Your task to perform on an android device: turn off notifications in google photos Image 0: 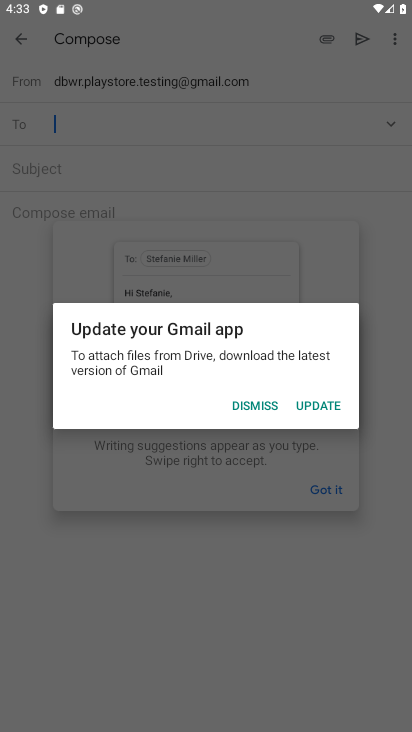
Step 0: press home button
Your task to perform on an android device: turn off notifications in google photos Image 1: 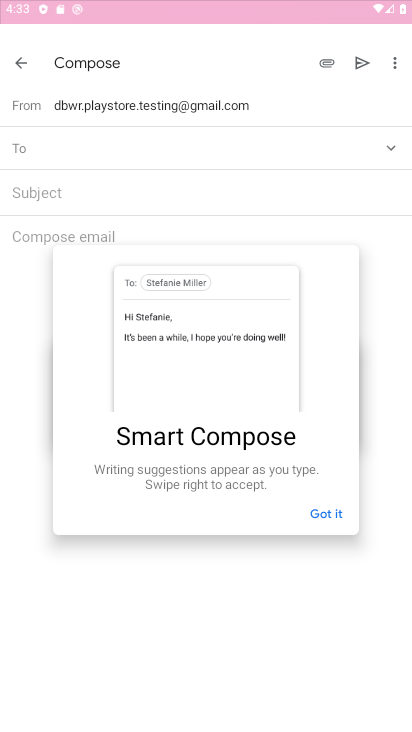
Step 1: click (254, 405)
Your task to perform on an android device: turn off notifications in google photos Image 2: 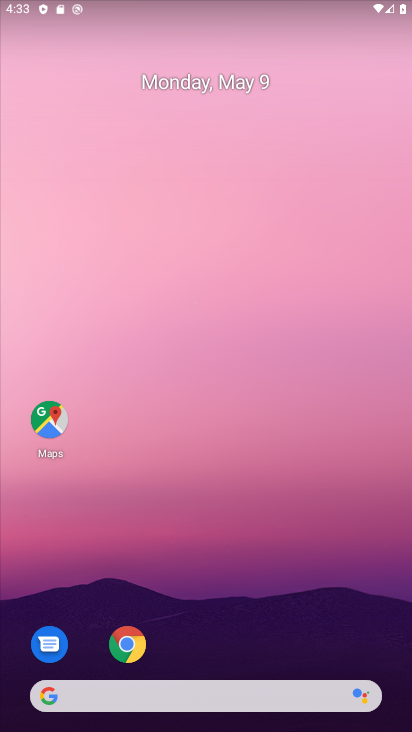
Step 2: click (75, 94)
Your task to perform on an android device: turn off notifications in google photos Image 3: 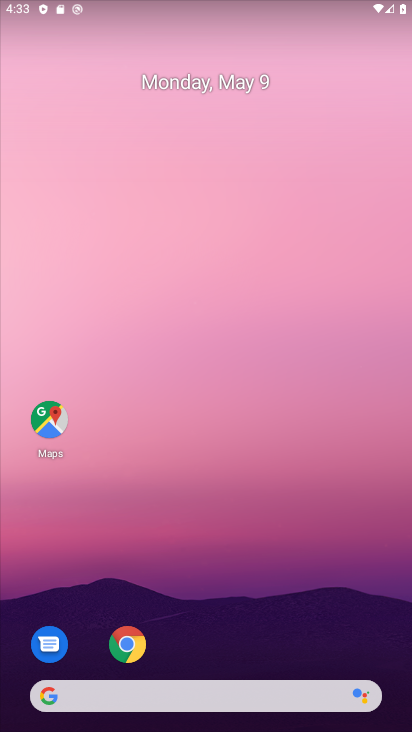
Step 3: drag from (276, 532) to (182, 159)
Your task to perform on an android device: turn off notifications in google photos Image 4: 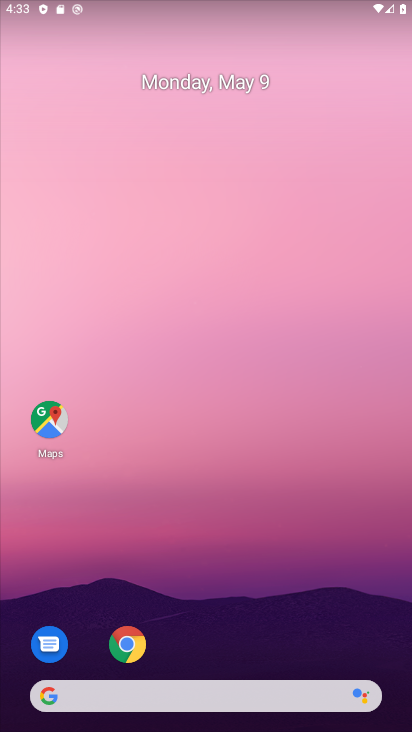
Step 4: drag from (233, 468) to (145, 94)
Your task to perform on an android device: turn off notifications in google photos Image 5: 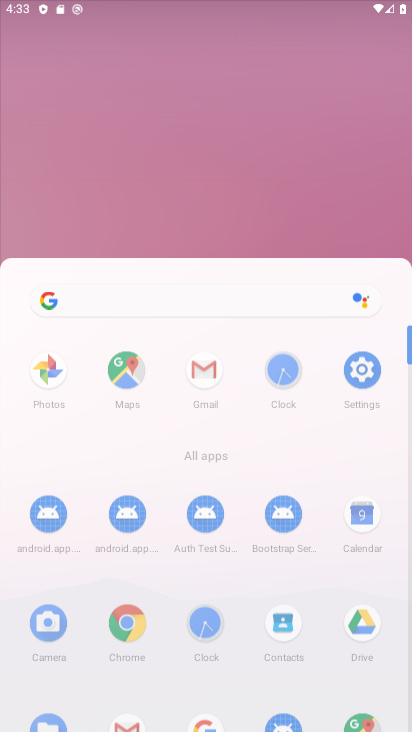
Step 5: drag from (195, 504) to (143, 109)
Your task to perform on an android device: turn off notifications in google photos Image 6: 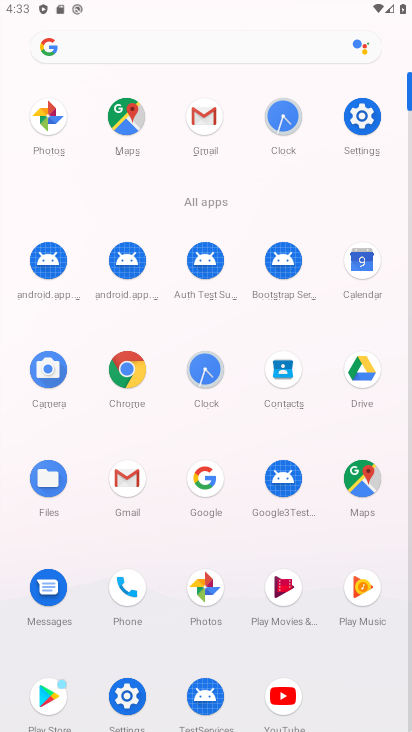
Step 6: click (202, 587)
Your task to perform on an android device: turn off notifications in google photos Image 7: 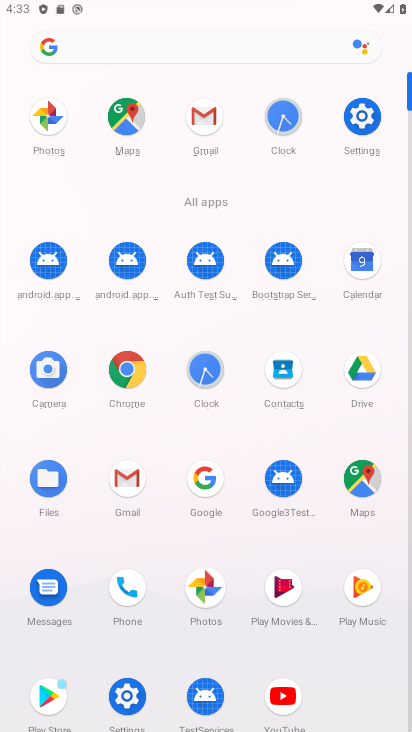
Step 7: click (202, 587)
Your task to perform on an android device: turn off notifications in google photos Image 8: 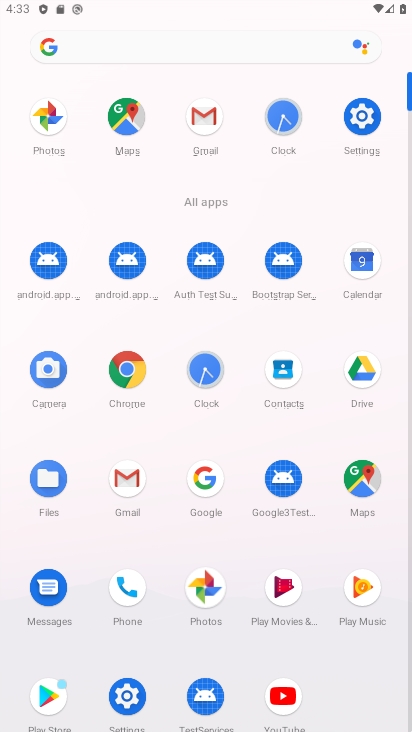
Step 8: click (202, 587)
Your task to perform on an android device: turn off notifications in google photos Image 9: 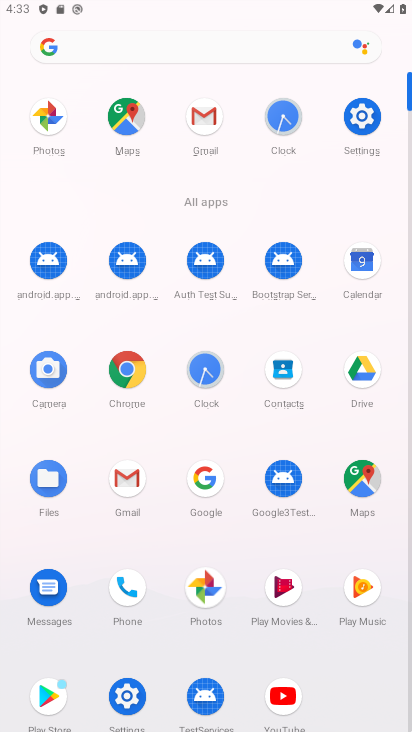
Step 9: click (202, 587)
Your task to perform on an android device: turn off notifications in google photos Image 10: 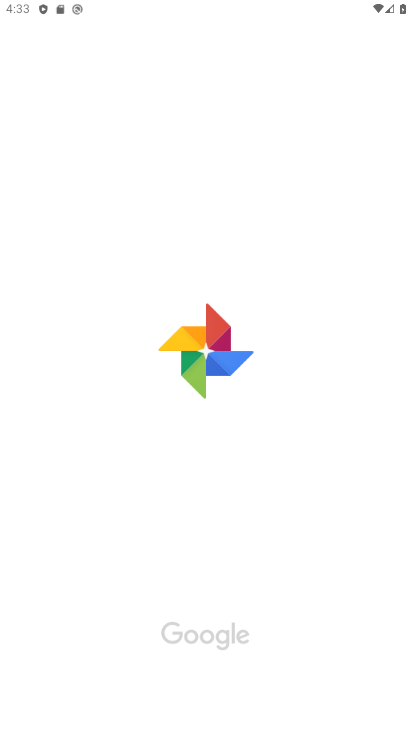
Step 10: click (202, 587)
Your task to perform on an android device: turn off notifications in google photos Image 11: 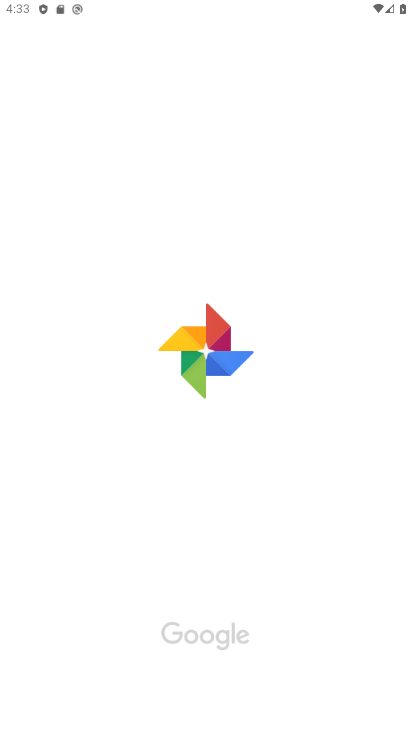
Step 11: click (202, 587)
Your task to perform on an android device: turn off notifications in google photos Image 12: 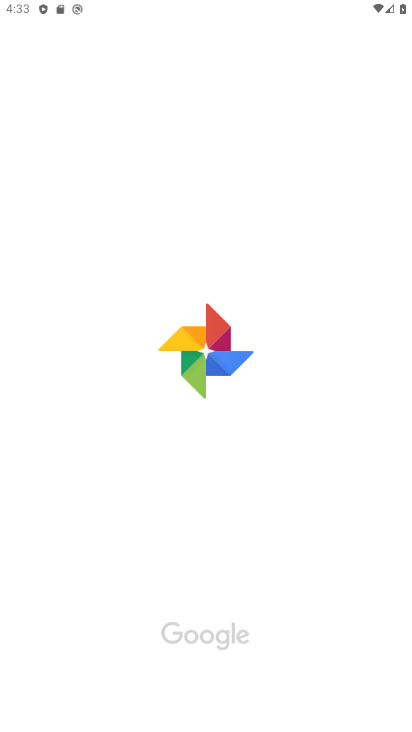
Step 12: click (202, 587)
Your task to perform on an android device: turn off notifications in google photos Image 13: 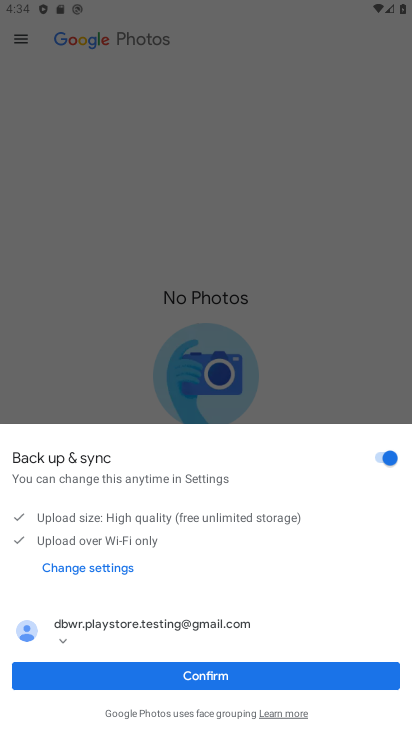
Step 13: click (235, 671)
Your task to perform on an android device: turn off notifications in google photos Image 14: 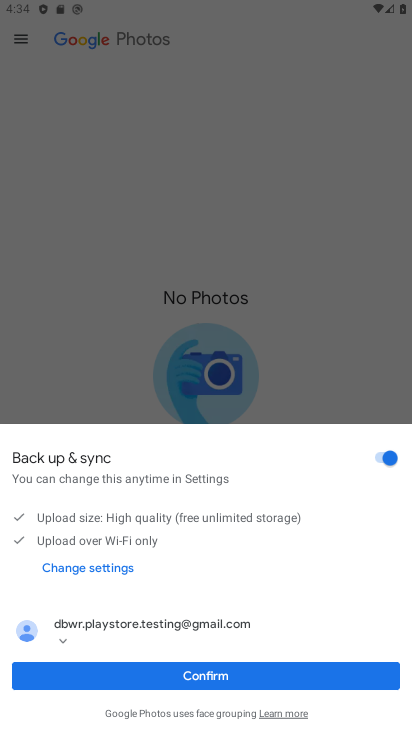
Step 14: click (234, 672)
Your task to perform on an android device: turn off notifications in google photos Image 15: 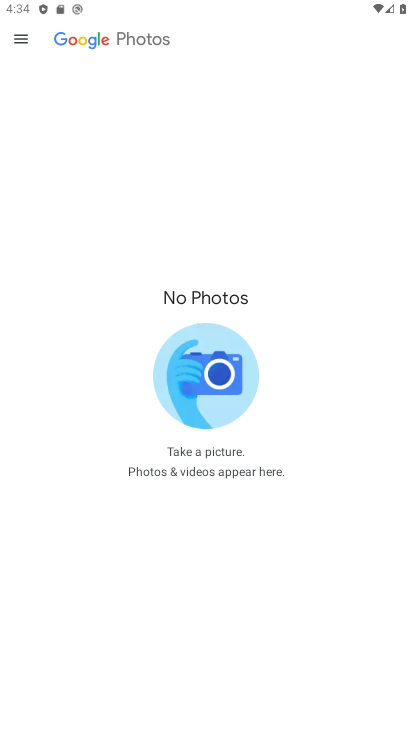
Step 15: click (234, 673)
Your task to perform on an android device: turn off notifications in google photos Image 16: 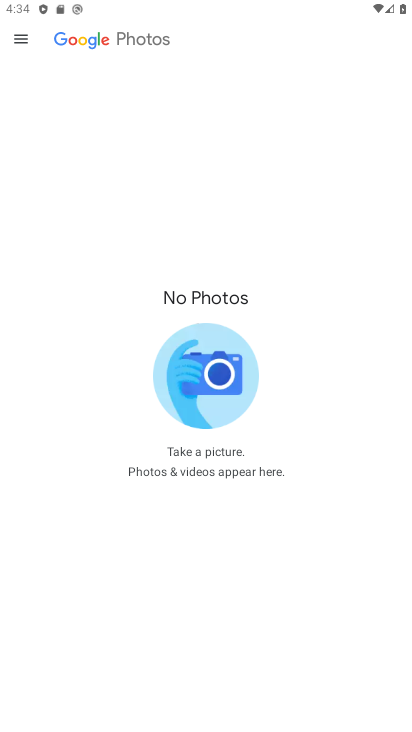
Step 16: click (234, 673)
Your task to perform on an android device: turn off notifications in google photos Image 17: 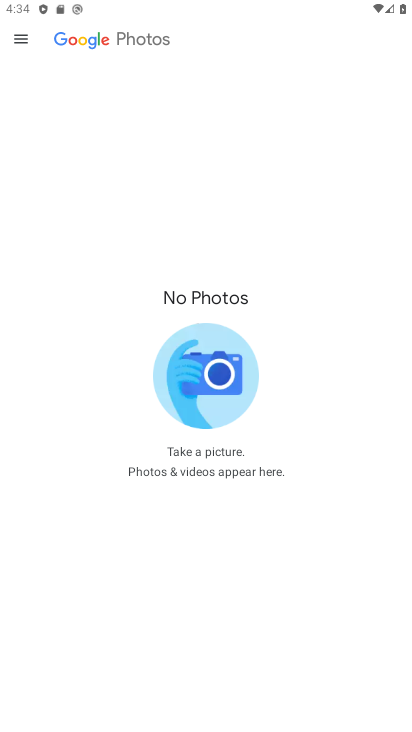
Step 17: click (234, 673)
Your task to perform on an android device: turn off notifications in google photos Image 18: 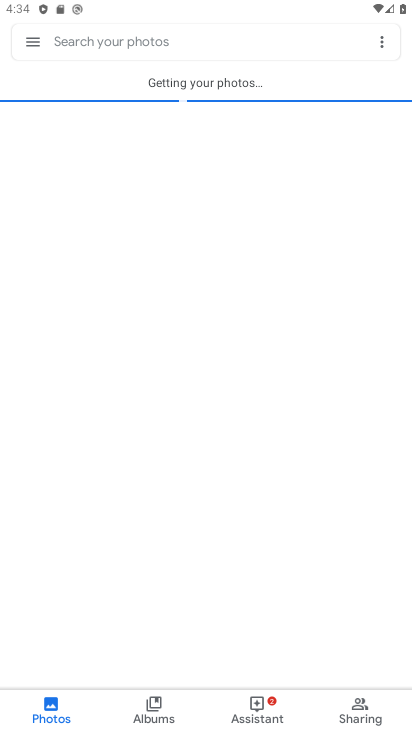
Step 18: click (27, 45)
Your task to perform on an android device: turn off notifications in google photos Image 19: 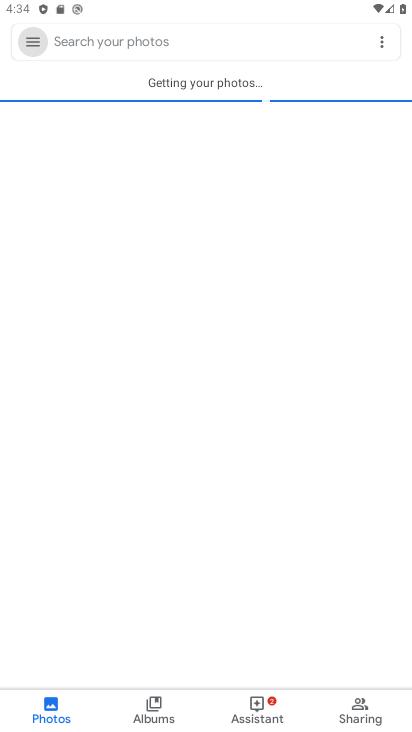
Step 19: click (31, 44)
Your task to perform on an android device: turn off notifications in google photos Image 20: 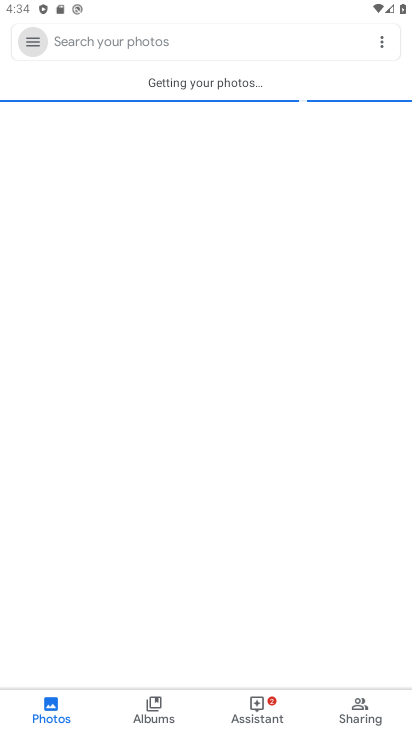
Step 20: click (31, 44)
Your task to perform on an android device: turn off notifications in google photos Image 21: 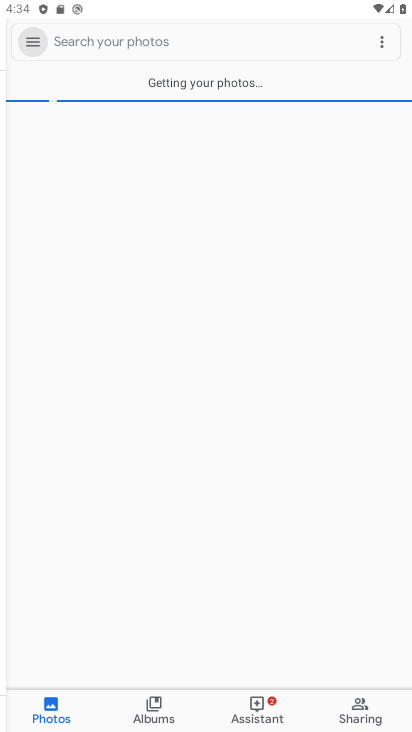
Step 21: click (31, 44)
Your task to perform on an android device: turn off notifications in google photos Image 22: 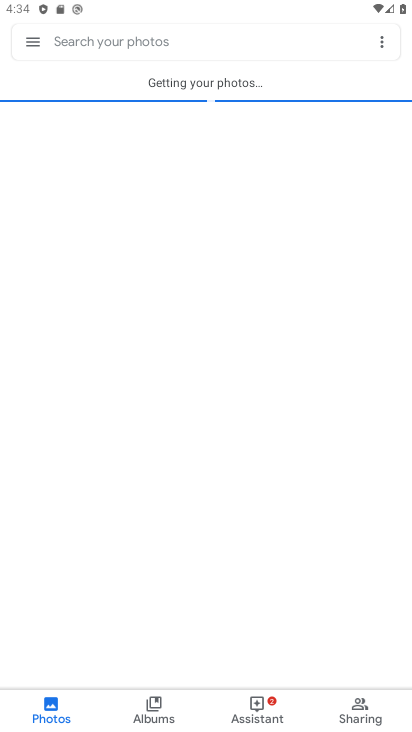
Step 22: click (32, 44)
Your task to perform on an android device: turn off notifications in google photos Image 23: 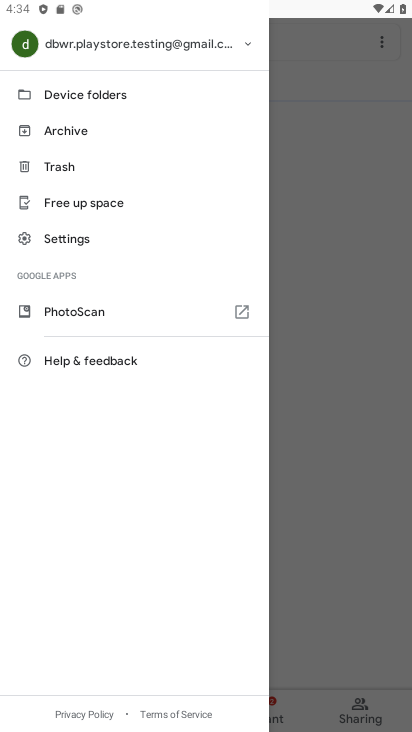
Step 23: click (34, 44)
Your task to perform on an android device: turn off notifications in google photos Image 24: 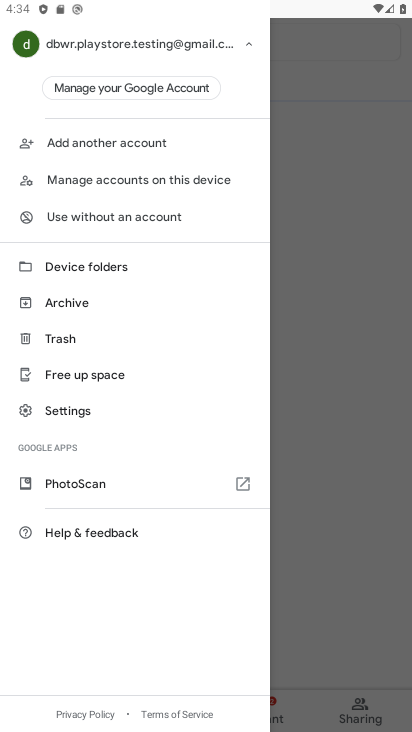
Step 24: click (64, 408)
Your task to perform on an android device: turn off notifications in google photos Image 25: 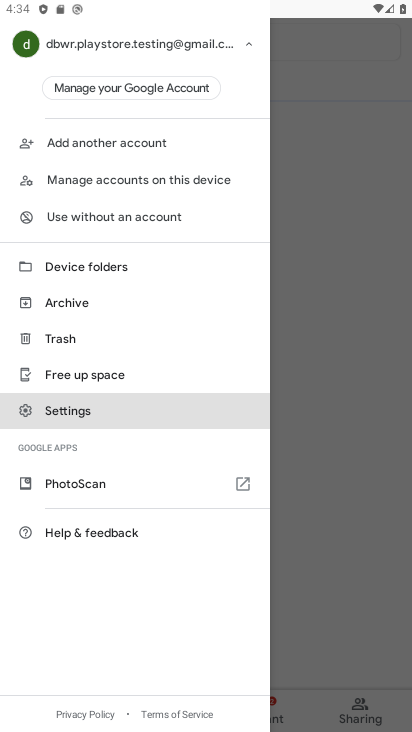
Step 25: click (65, 405)
Your task to perform on an android device: turn off notifications in google photos Image 26: 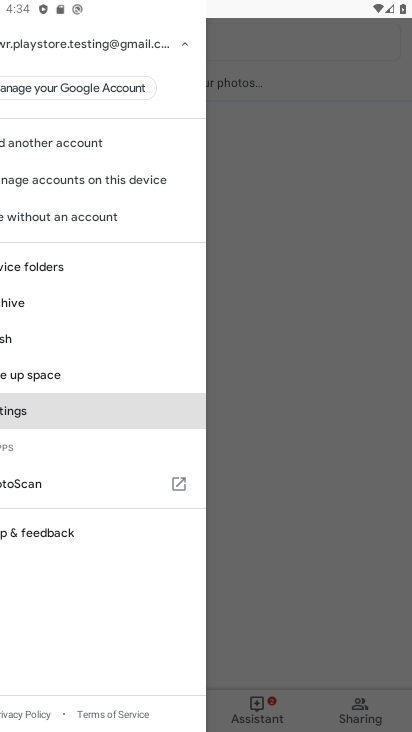
Step 26: click (65, 405)
Your task to perform on an android device: turn off notifications in google photos Image 27: 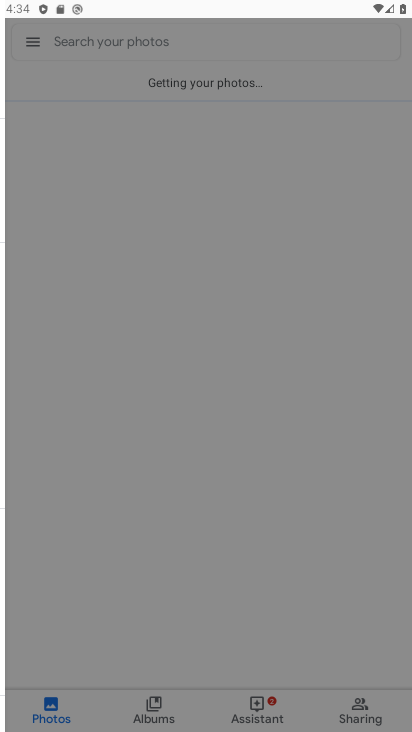
Step 27: click (65, 405)
Your task to perform on an android device: turn off notifications in google photos Image 28: 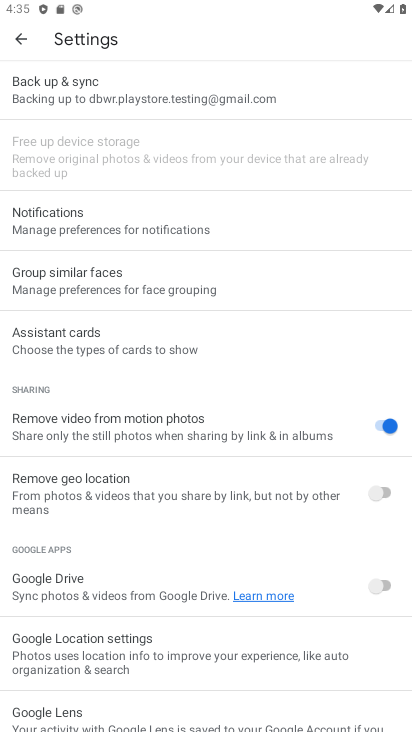
Step 28: click (51, 215)
Your task to perform on an android device: turn off notifications in google photos Image 29: 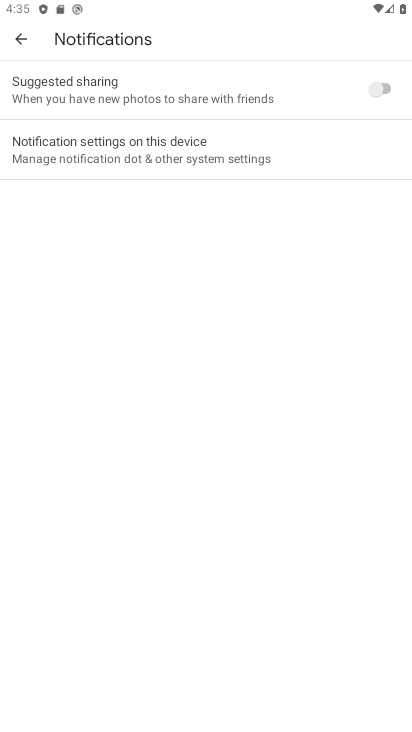
Step 29: task complete